Your task to perform on an android device: check the backup settings in the google photos Image 0: 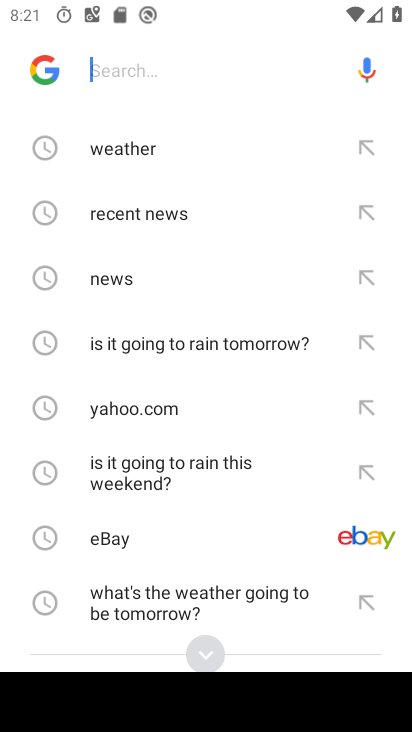
Step 0: press home button
Your task to perform on an android device: check the backup settings in the google photos Image 1: 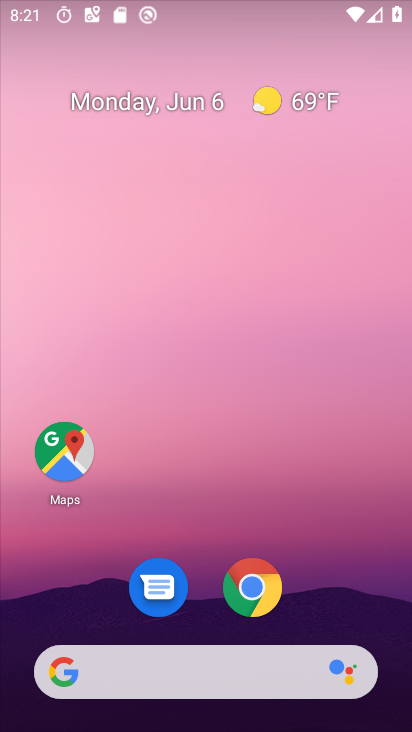
Step 1: drag from (307, 499) to (312, 118)
Your task to perform on an android device: check the backup settings in the google photos Image 2: 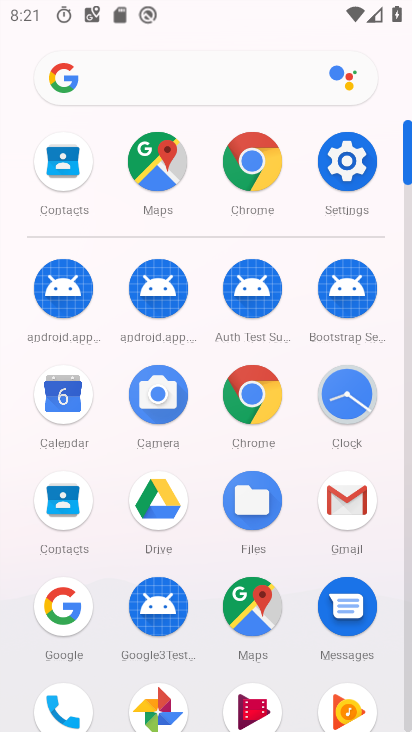
Step 2: drag from (205, 661) to (193, 468)
Your task to perform on an android device: check the backup settings in the google photos Image 3: 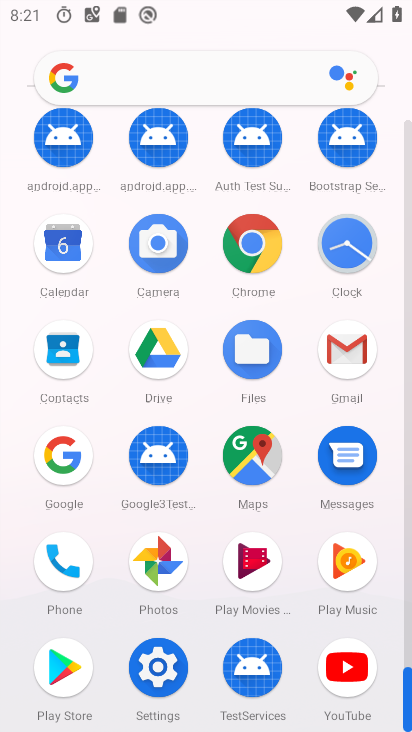
Step 3: click (178, 568)
Your task to perform on an android device: check the backup settings in the google photos Image 4: 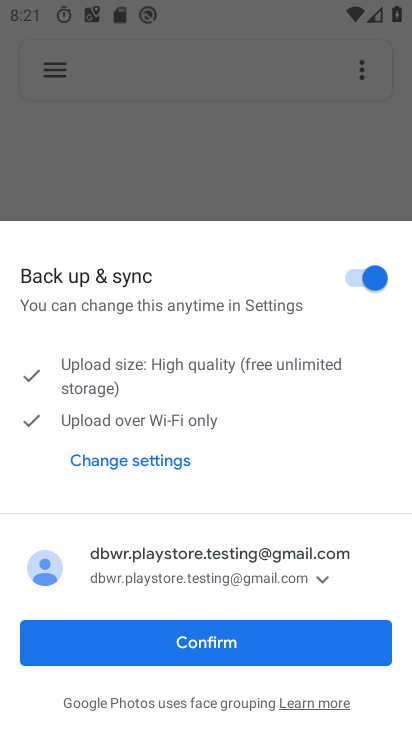
Step 4: click (214, 640)
Your task to perform on an android device: check the backup settings in the google photos Image 5: 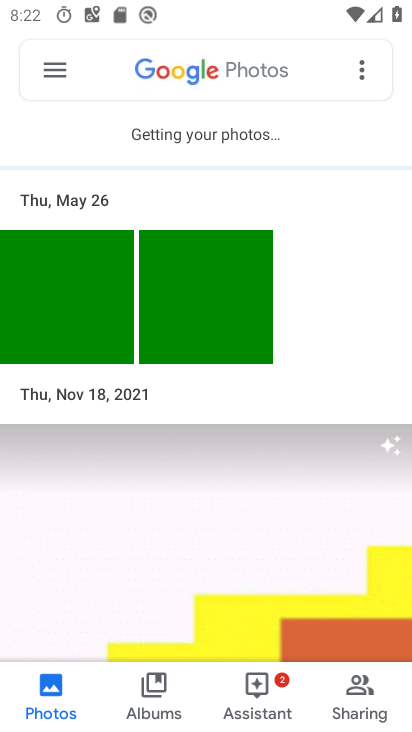
Step 5: click (50, 68)
Your task to perform on an android device: check the backup settings in the google photos Image 6: 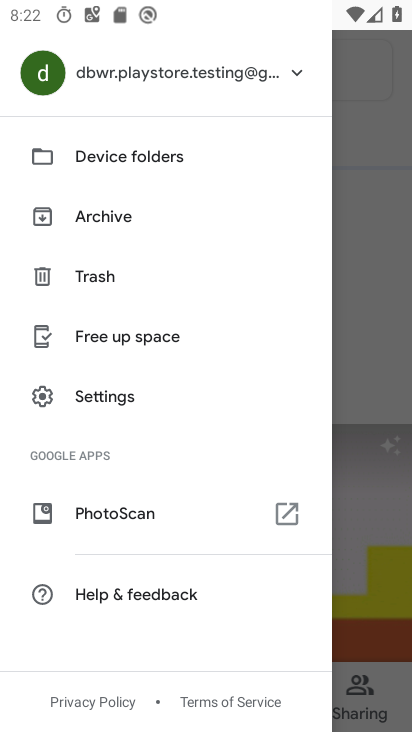
Step 6: click (112, 399)
Your task to perform on an android device: check the backup settings in the google photos Image 7: 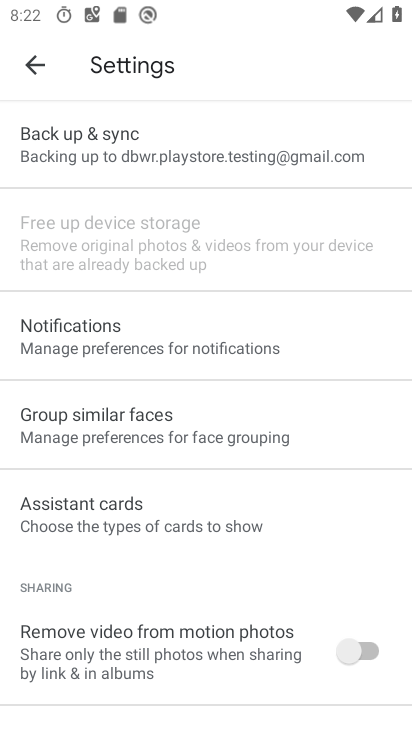
Step 7: task complete